Your task to perform on an android device: change alarm snooze length Image 0: 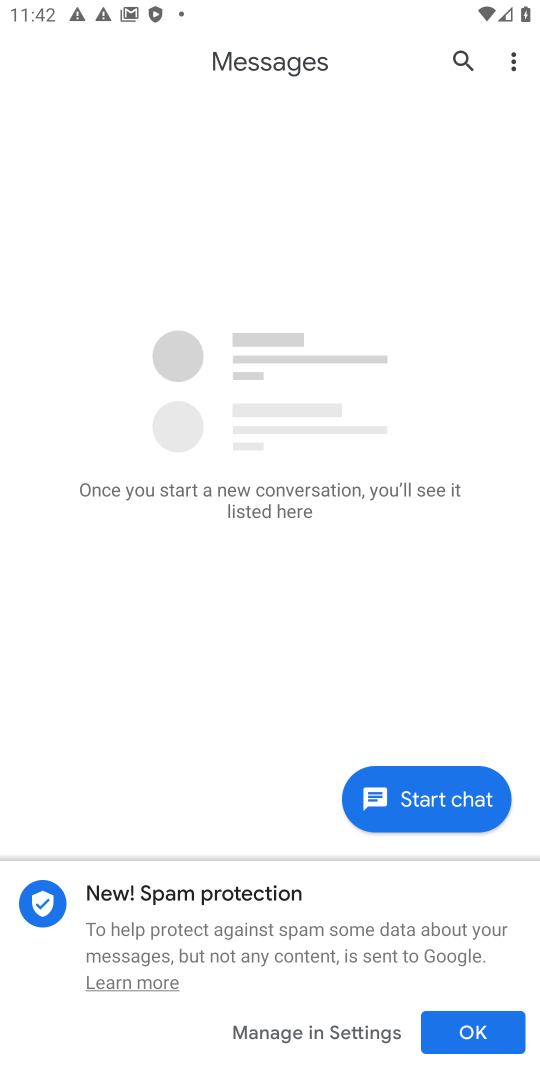
Step 0: press home button
Your task to perform on an android device: change alarm snooze length Image 1: 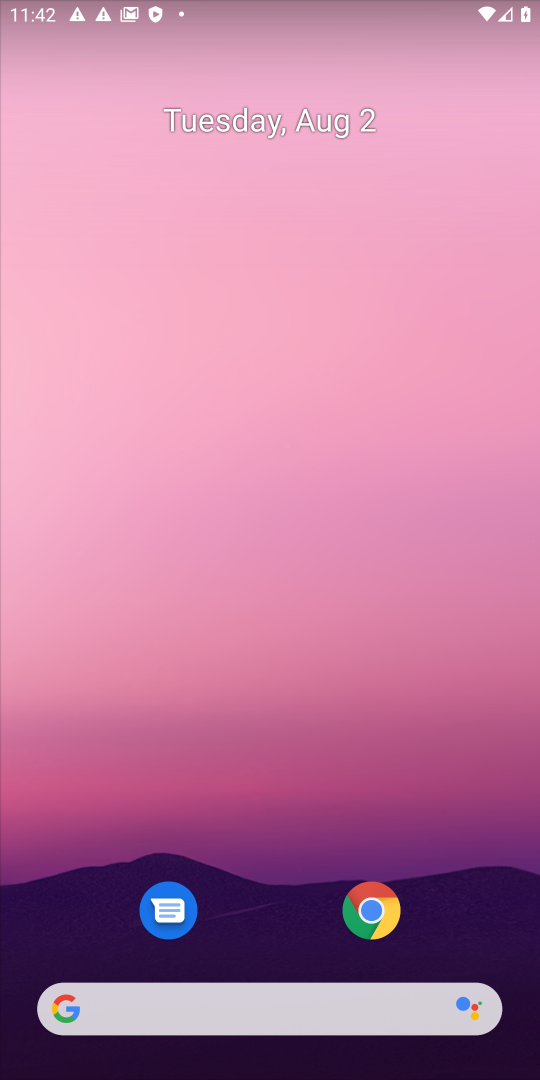
Step 1: drag from (281, 852) to (283, 45)
Your task to perform on an android device: change alarm snooze length Image 2: 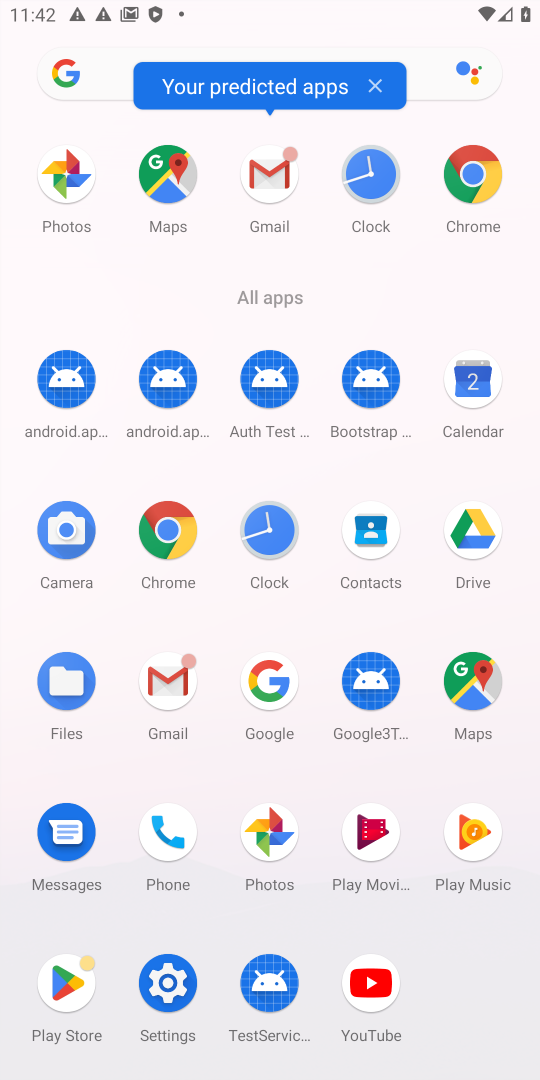
Step 2: click (364, 176)
Your task to perform on an android device: change alarm snooze length Image 3: 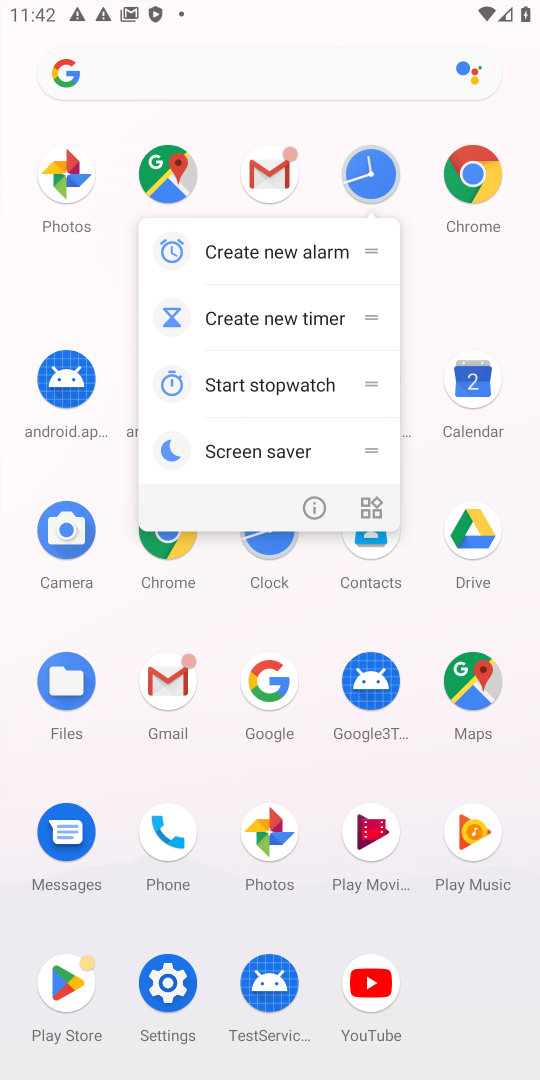
Step 3: click (364, 176)
Your task to perform on an android device: change alarm snooze length Image 4: 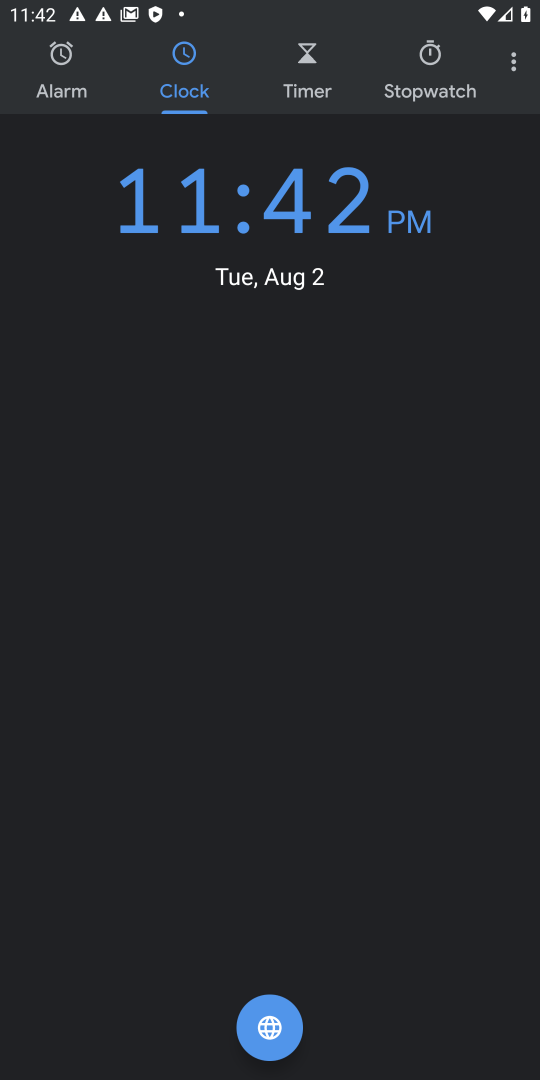
Step 4: click (517, 65)
Your task to perform on an android device: change alarm snooze length Image 5: 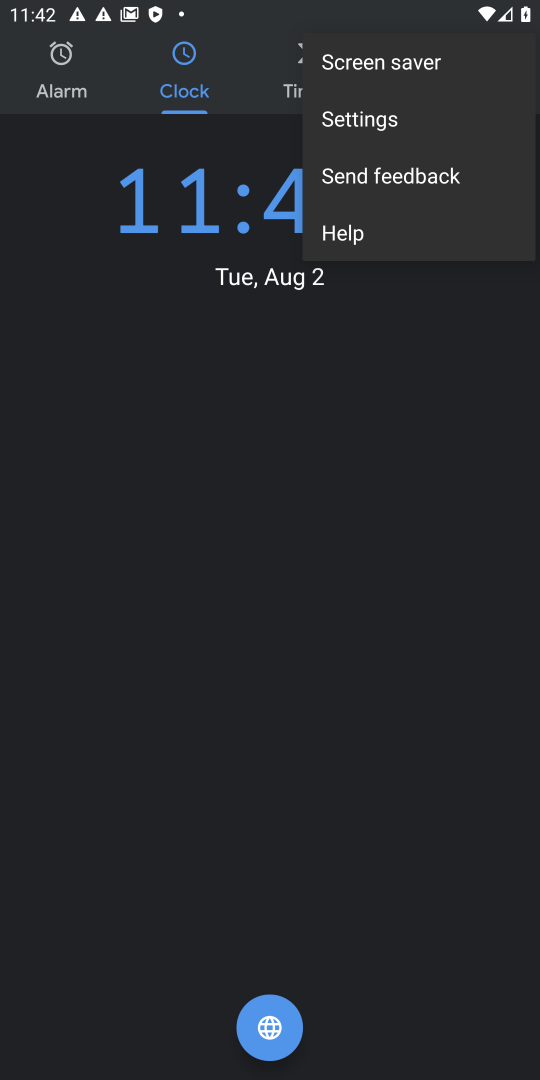
Step 5: click (389, 121)
Your task to perform on an android device: change alarm snooze length Image 6: 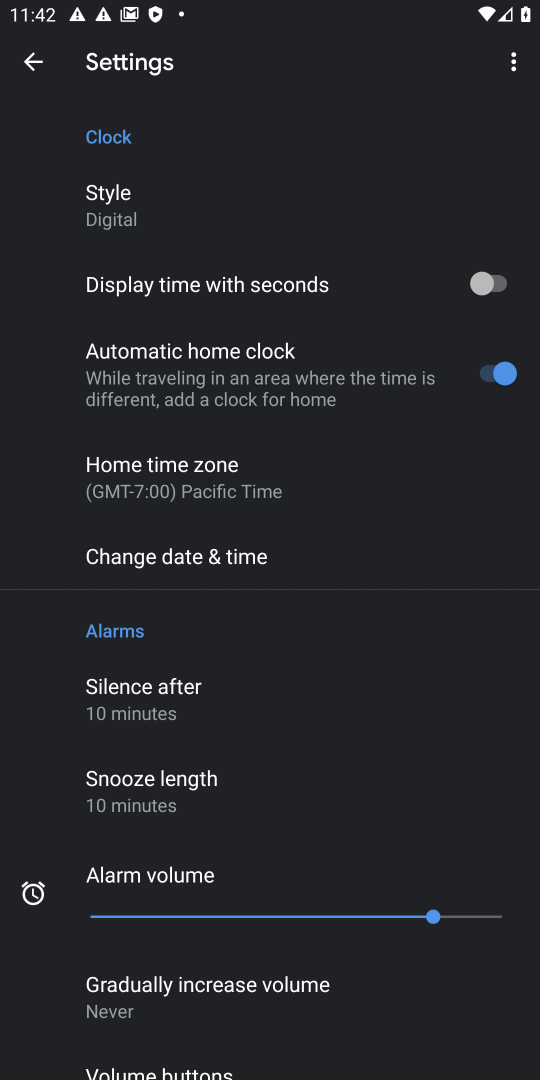
Step 6: click (110, 789)
Your task to perform on an android device: change alarm snooze length Image 7: 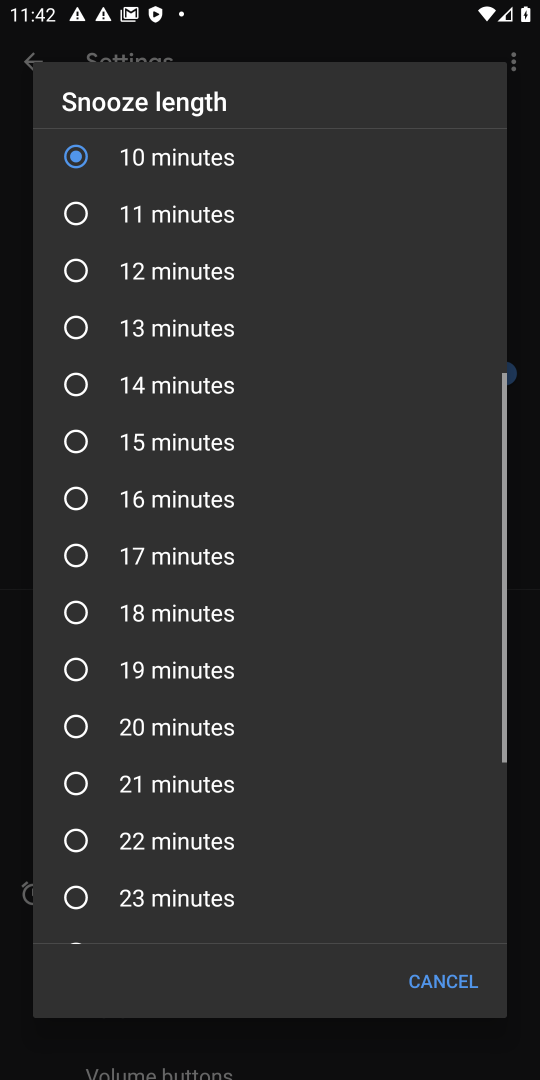
Step 7: click (72, 271)
Your task to perform on an android device: change alarm snooze length Image 8: 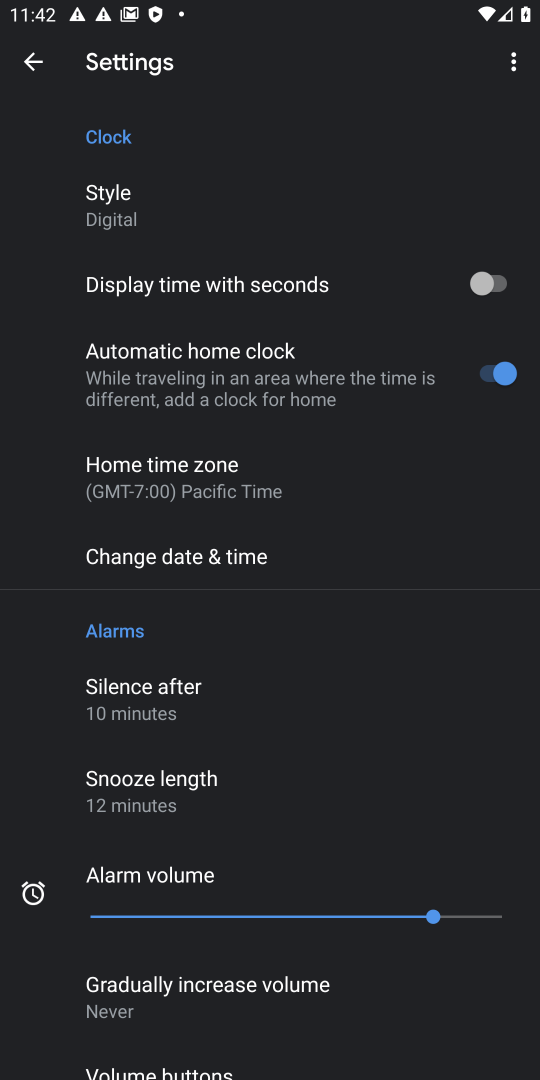
Step 8: task complete